Your task to perform on an android device: turn off translation in the chrome app Image 0: 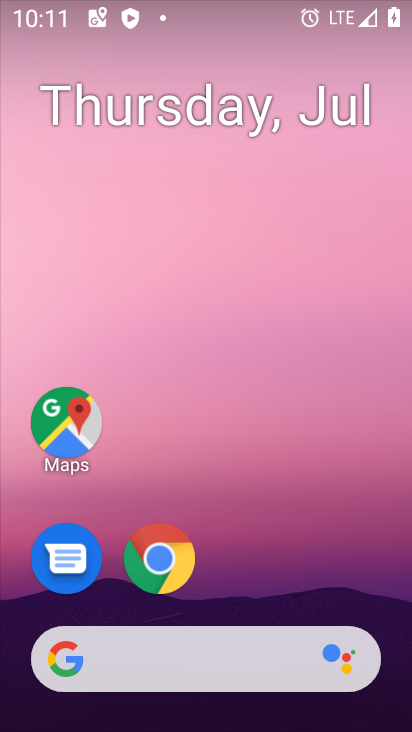
Step 0: drag from (349, 576) to (381, 88)
Your task to perform on an android device: turn off translation in the chrome app Image 1: 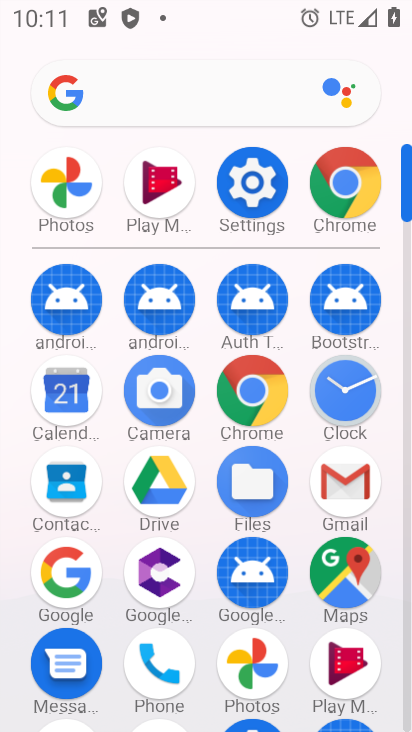
Step 1: click (265, 393)
Your task to perform on an android device: turn off translation in the chrome app Image 2: 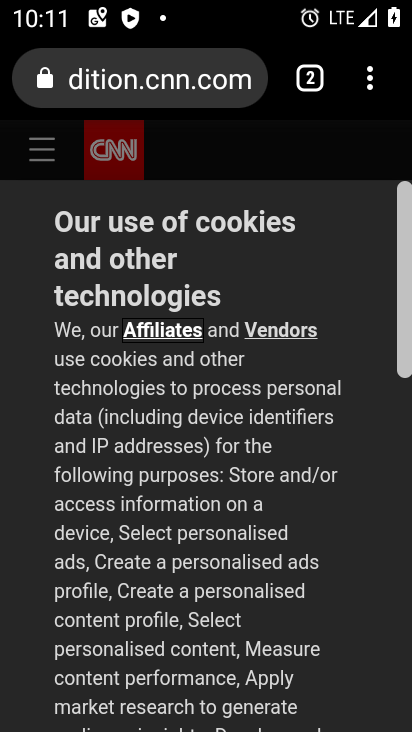
Step 2: click (366, 92)
Your task to perform on an android device: turn off translation in the chrome app Image 3: 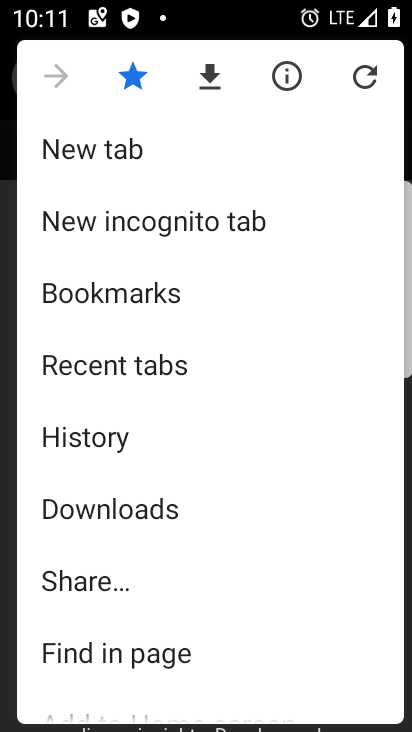
Step 3: drag from (334, 540) to (338, 445)
Your task to perform on an android device: turn off translation in the chrome app Image 4: 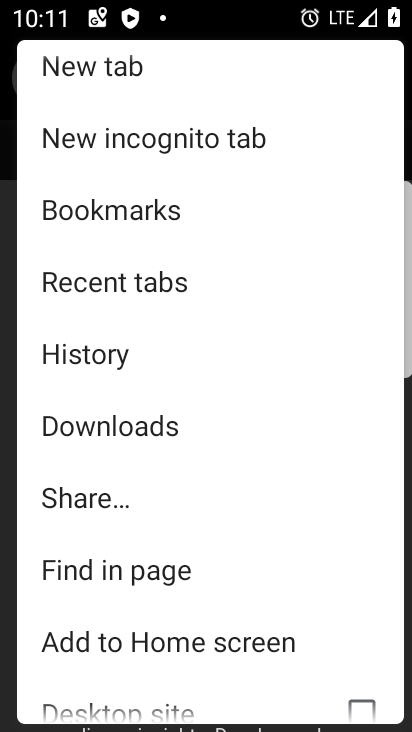
Step 4: drag from (342, 523) to (331, 418)
Your task to perform on an android device: turn off translation in the chrome app Image 5: 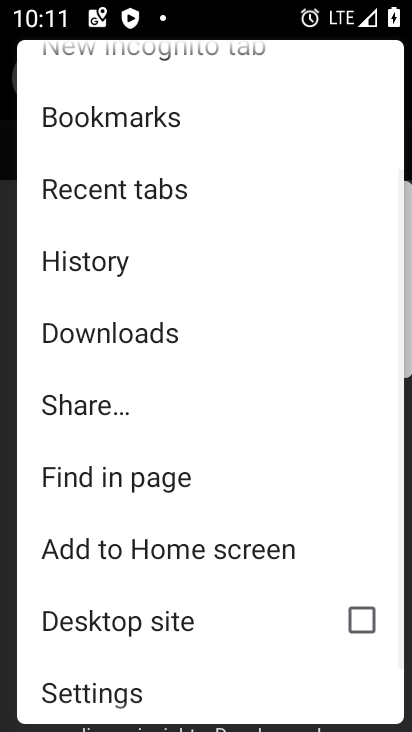
Step 5: drag from (320, 535) to (317, 443)
Your task to perform on an android device: turn off translation in the chrome app Image 6: 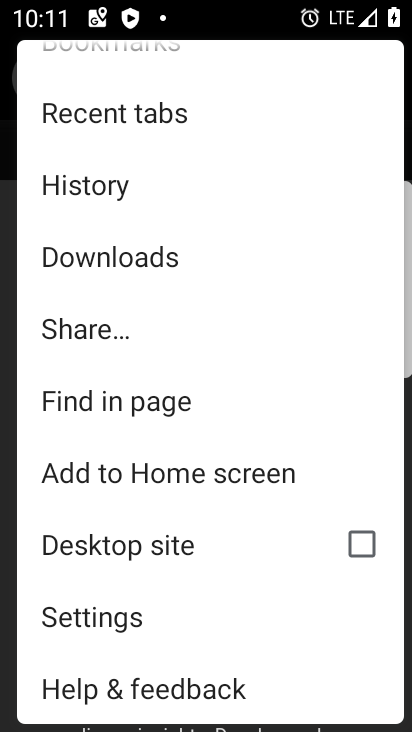
Step 6: drag from (291, 574) to (291, 454)
Your task to perform on an android device: turn off translation in the chrome app Image 7: 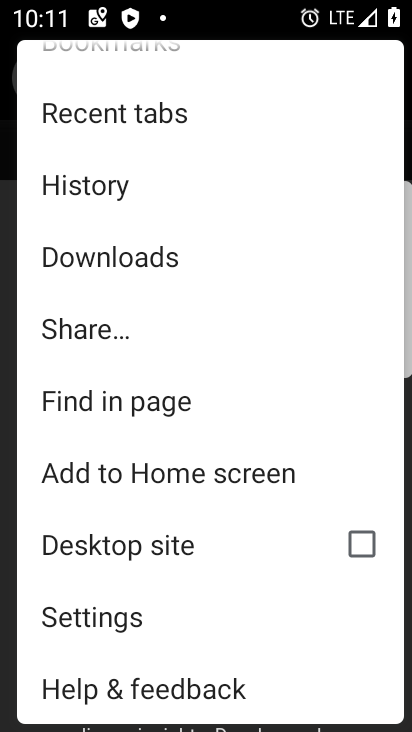
Step 7: click (178, 620)
Your task to perform on an android device: turn off translation in the chrome app Image 8: 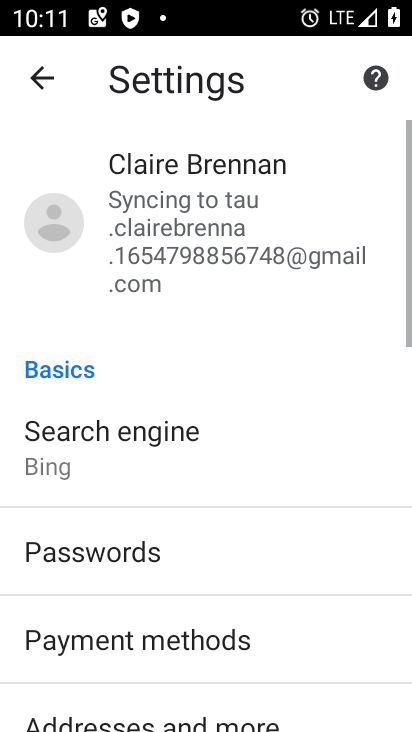
Step 8: drag from (323, 606) to (324, 501)
Your task to perform on an android device: turn off translation in the chrome app Image 9: 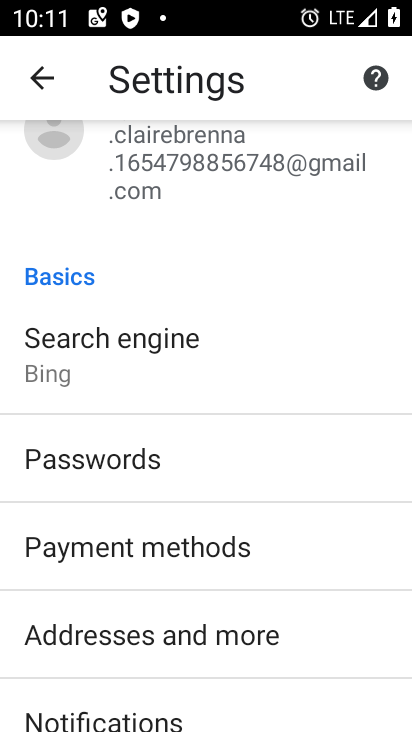
Step 9: drag from (326, 605) to (334, 502)
Your task to perform on an android device: turn off translation in the chrome app Image 10: 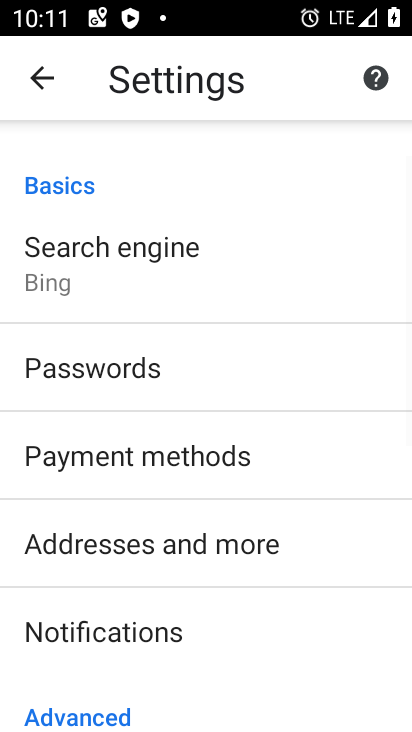
Step 10: drag from (340, 619) to (342, 522)
Your task to perform on an android device: turn off translation in the chrome app Image 11: 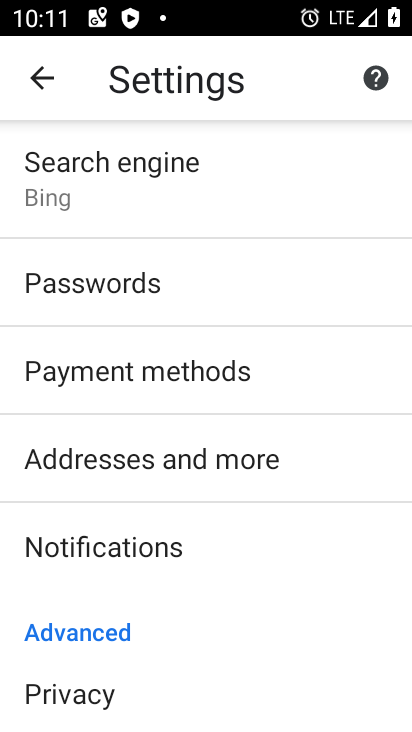
Step 11: drag from (336, 599) to (336, 514)
Your task to perform on an android device: turn off translation in the chrome app Image 12: 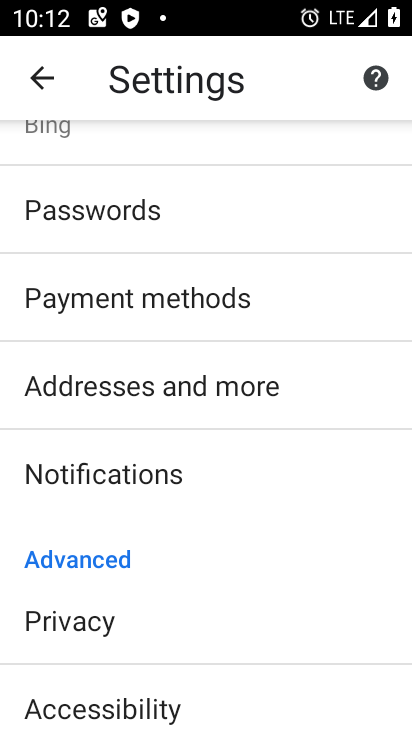
Step 12: drag from (332, 583) to (337, 494)
Your task to perform on an android device: turn off translation in the chrome app Image 13: 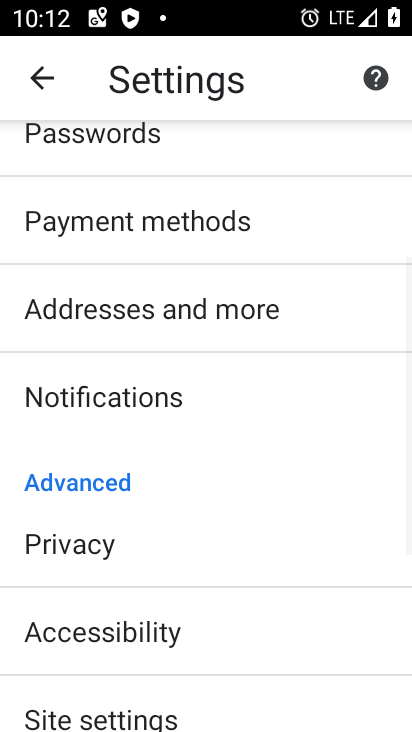
Step 13: drag from (328, 580) to (326, 487)
Your task to perform on an android device: turn off translation in the chrome app Image 14: 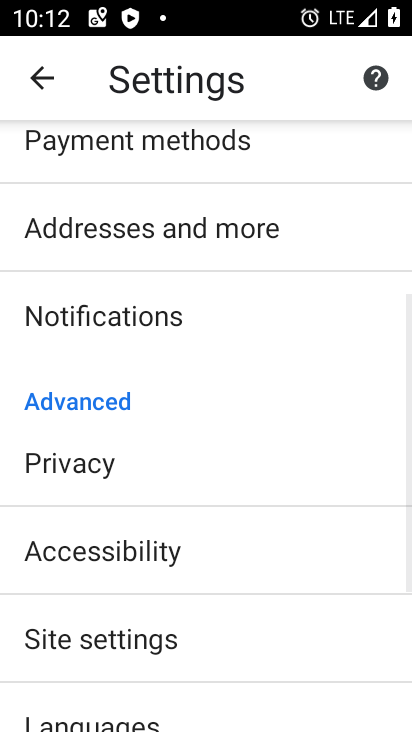
Step 14: drag from (329, 612) to (330, 501)
Your task to perform on an android device: turn off translation in the chrome app Image 15: 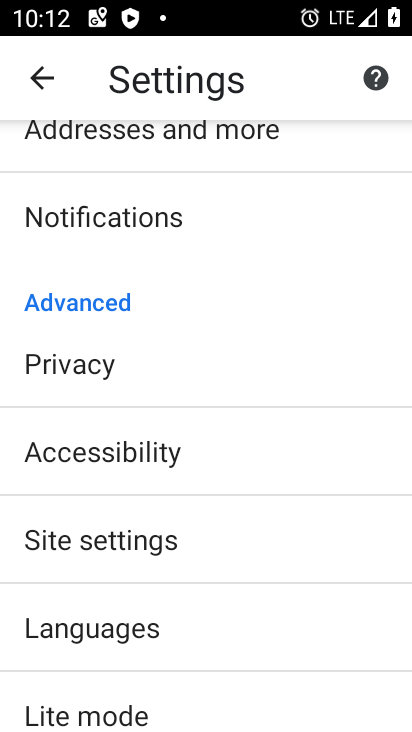
Step 15: drag from (330, 634) to (335, 527)
Your task to perform on an android device: turn off translation in the chrome app Image 16: 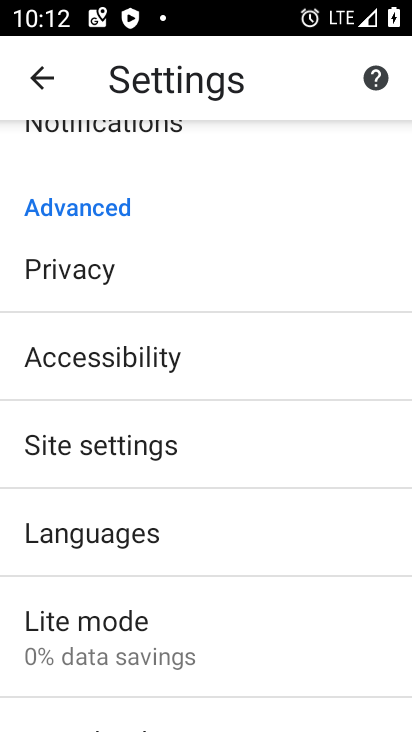
Step 16: drag from (321, 630) to (327, 445)
Your task to perform on an android device: turn off translation in the chrome app Image 17: 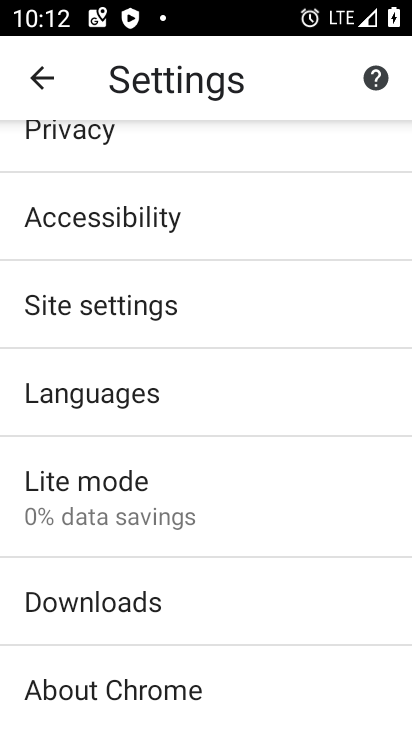
Step 17: click (279, 391)
Your task to perform on an android device: turn off translation in the chrome app Image 18: 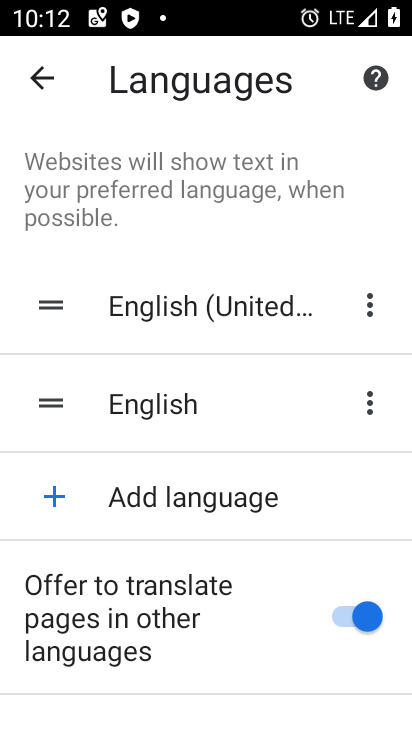
Step 18: click (361, 618)
Your task to perform on an android device: turn off translation in the chrome app Image 19: 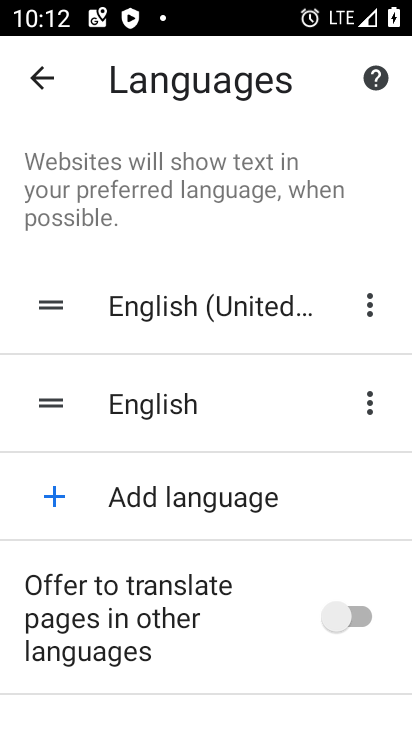
Step 19: task complete